Your task to perform on an android device: Open calendar and show me the third week of next month Image 0: 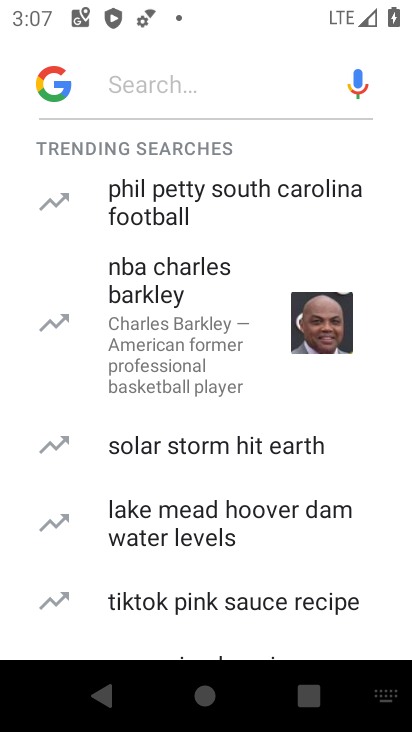
Step 0: press back button
Your task to perform on an android device: Open calendar and show me the third week of next month Image 1: 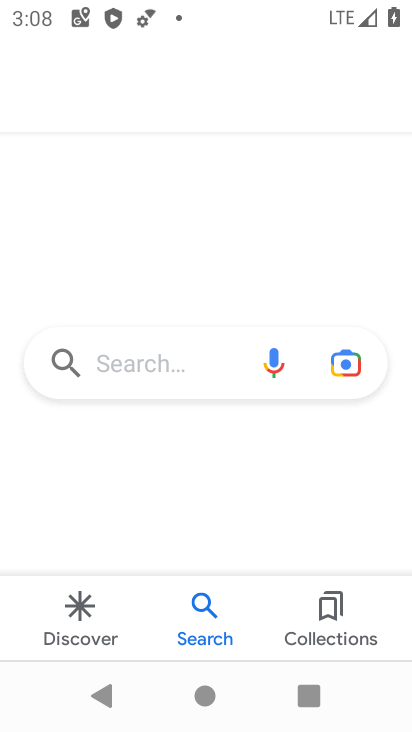
Step 1: press back button
Your task to perform on an android device: Open calendar and show me the third week of next month Image 2: 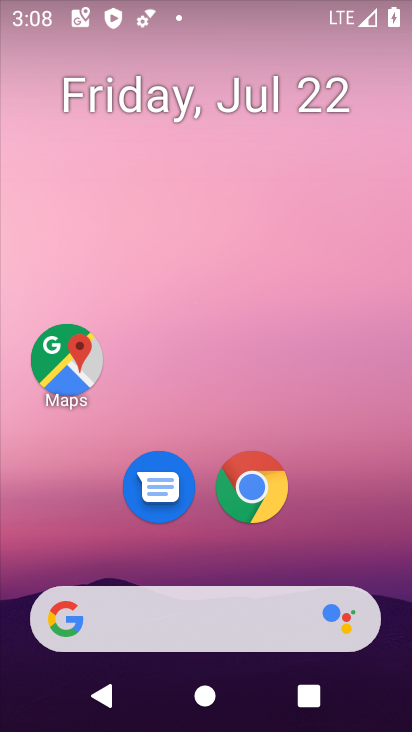
Step 2: drag from (73, 566) to (221, 90)
Your task to perform on an android device: Open calendar and show me the third week of next month Image 3: 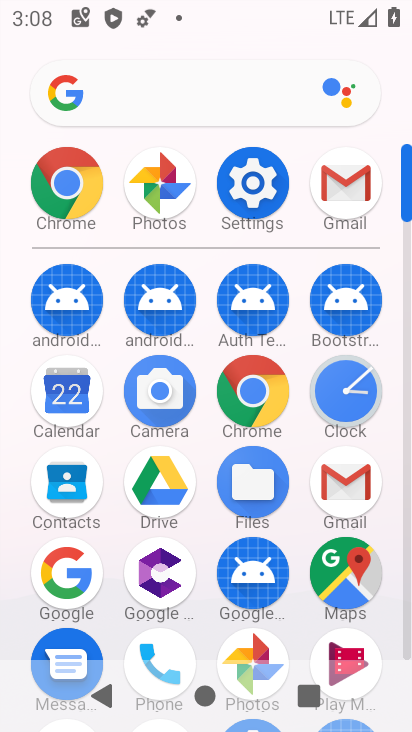
Step 3: click (65, 413)
Your task to perform on an android device: Open calendar and show me the third week of next month Image 4: 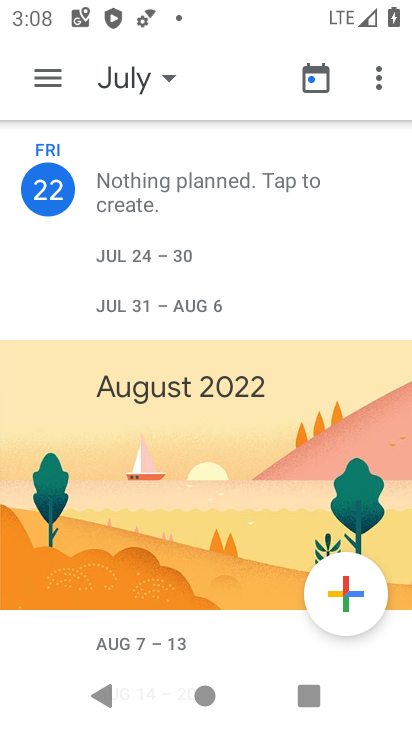
Step 4: click (147, 82)
Your task to perform on an android device: Open calendar and show me the third week of next month Image 5: 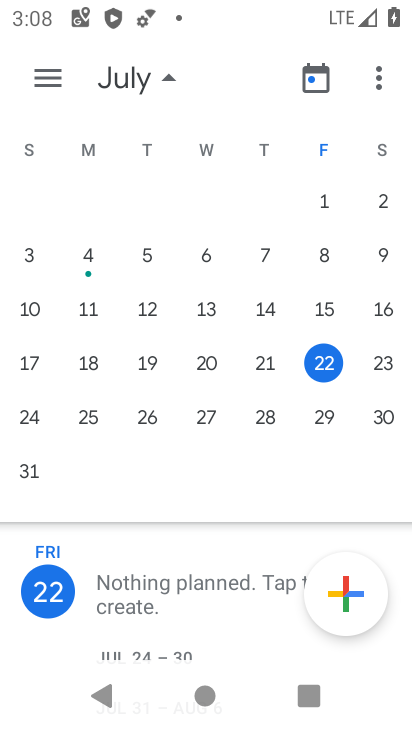
Step 5: drag from (354, 317) to (13, 291)
Your task to perform on an android device: Open calendar and show me the third week of next month Image 6: 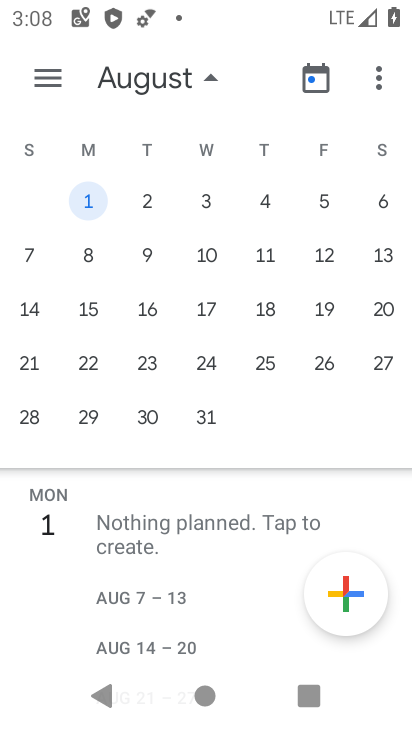
Step 6: click (86, 314)
Your task to perform on an android device: Open calendar and show me the third week of next month Image 7: 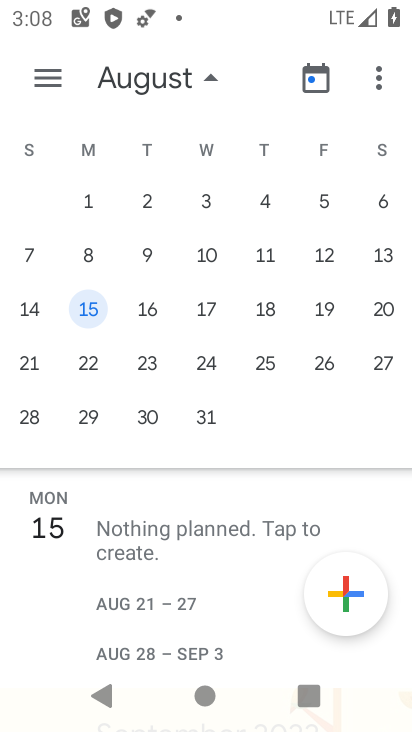
Step 7: task complete